Your task to perform on an android device: find which apps use the phone's location Image 0: 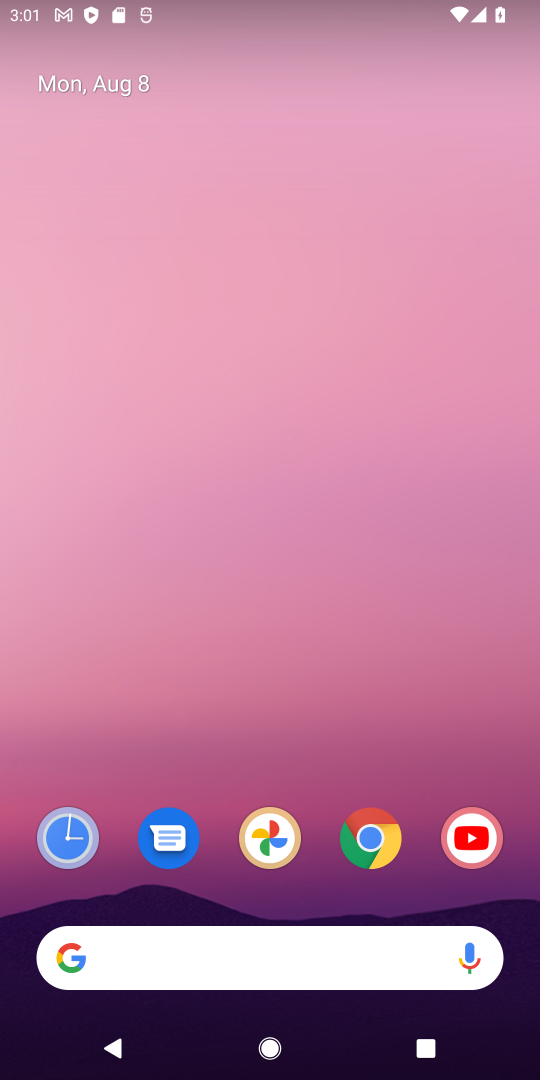
Step 0: drag from (222, 962) to (215, 285)
Your task to perform on an android device: find which apps use the phone's location Image 1: 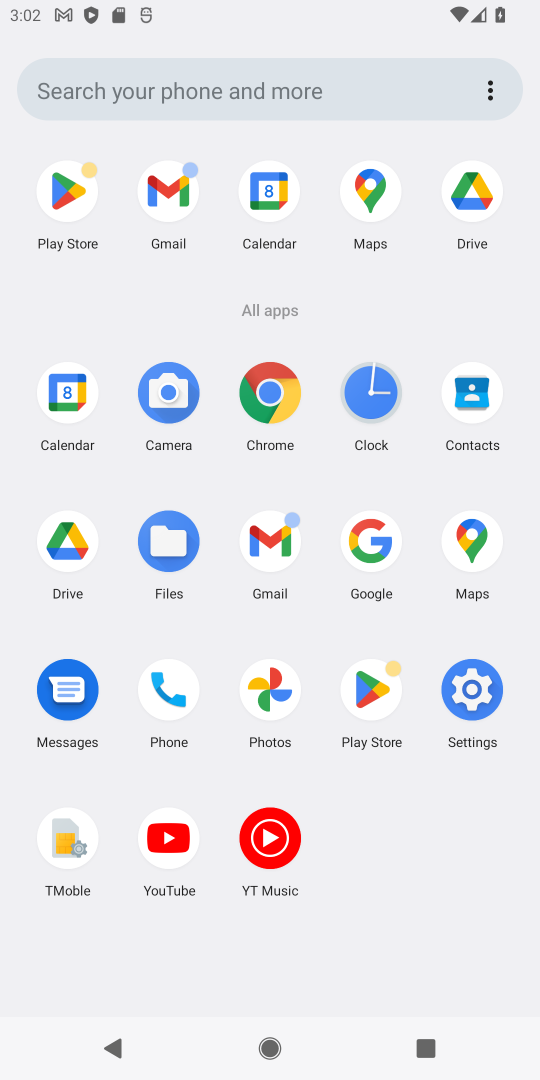
Step 1: click (471, 688)
Your task to perform on an android device: find which apps use the phone's location Image 2: 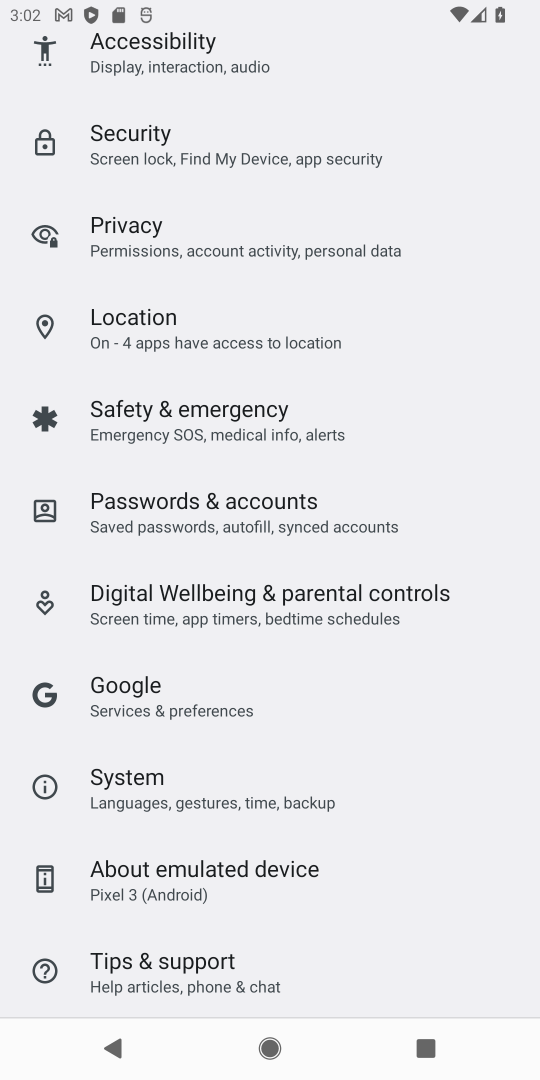
Step 2: click (242, 344)
Your task to perform on an android device: find which apps use the phone's location Image 3: 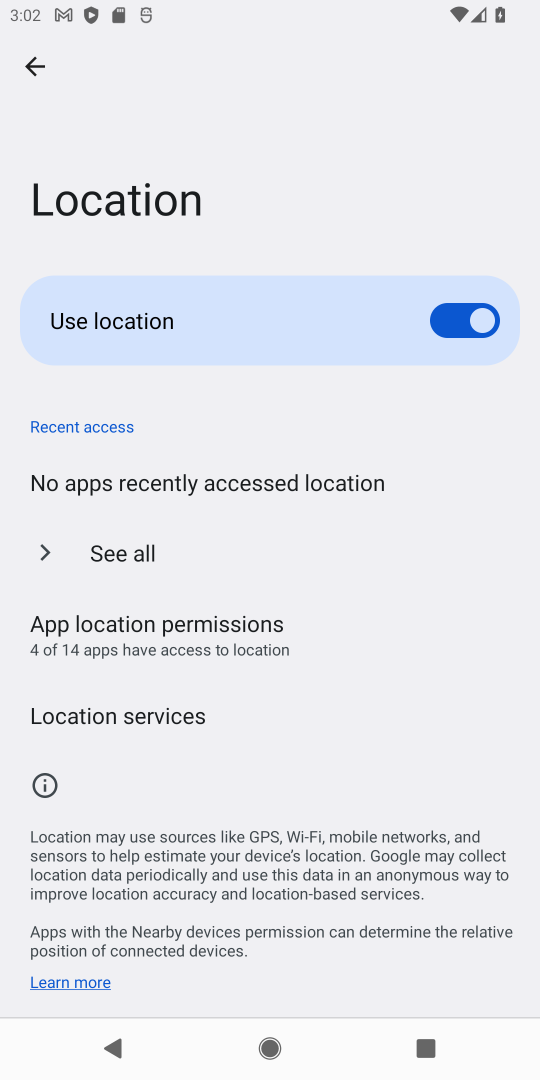
Step 3: click (200, 644)
Your task to perform on an android device: find which apps use the phone's location Image 4: 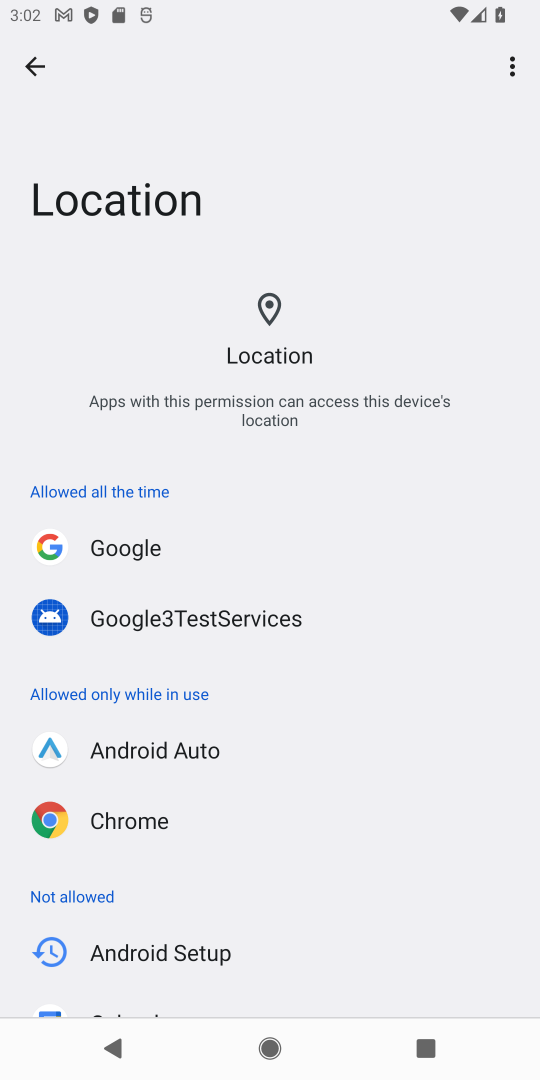
Step 4: drag from (156, 865) to (267, 698)
Your task to perform on an android device: find which apps use the phone's location Image 5: 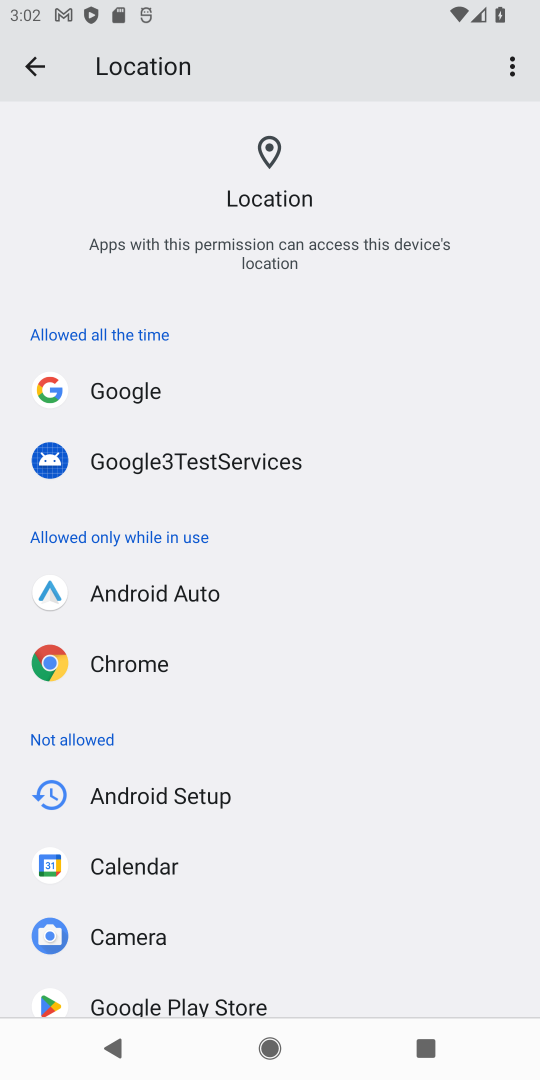
Step 5: drag from (195, 877) to (292, 727)
Your task to perform on an android device: find which apps use the phone's location Image 6: 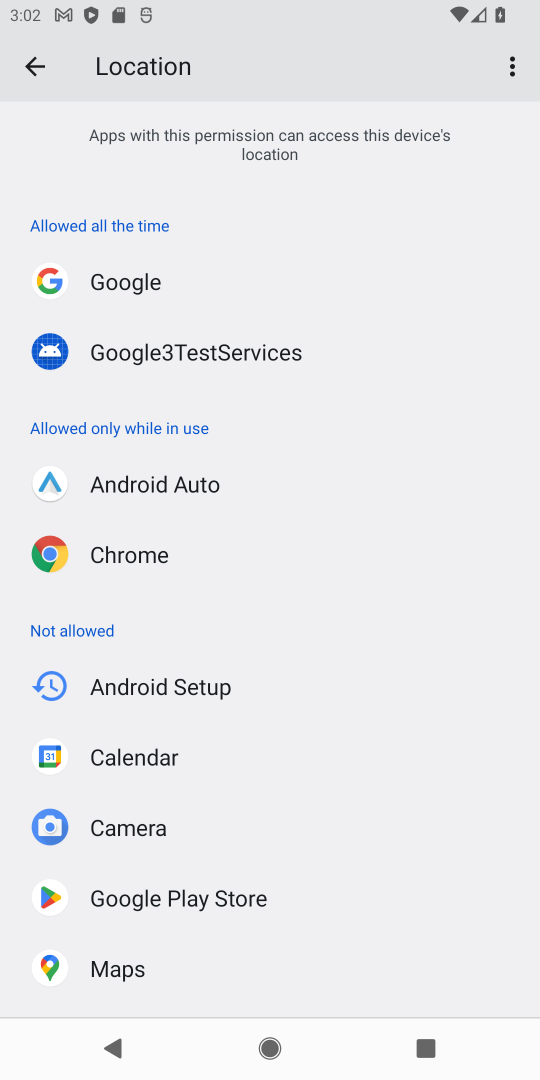
Step 6: click (138, 973)
Your task to perform on an android device: find which apps use the phone's location Image 7: 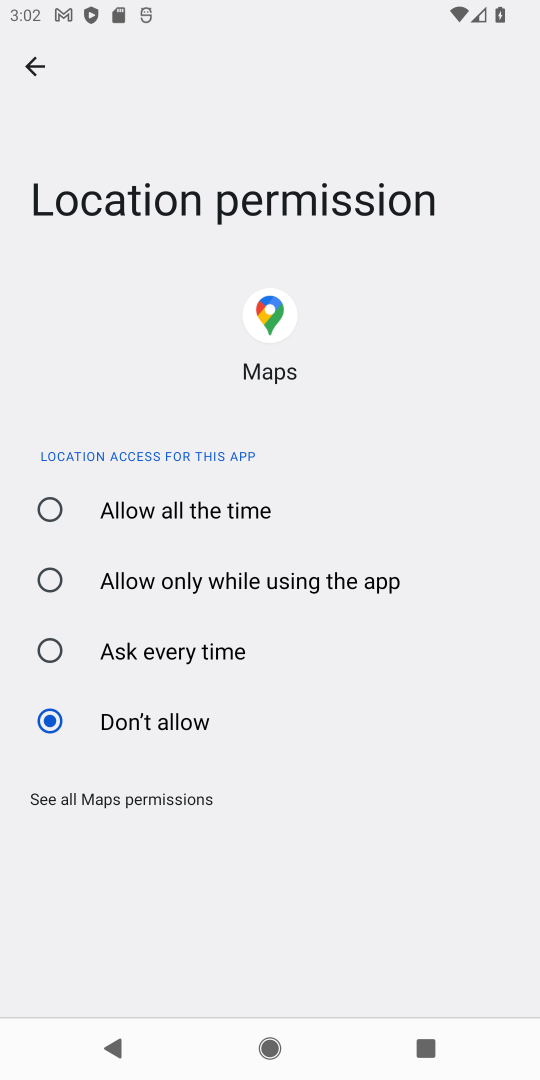
Step 7: click (49, 514)
Your task to perform on an android device: find which apps use the phone's location Image 8: 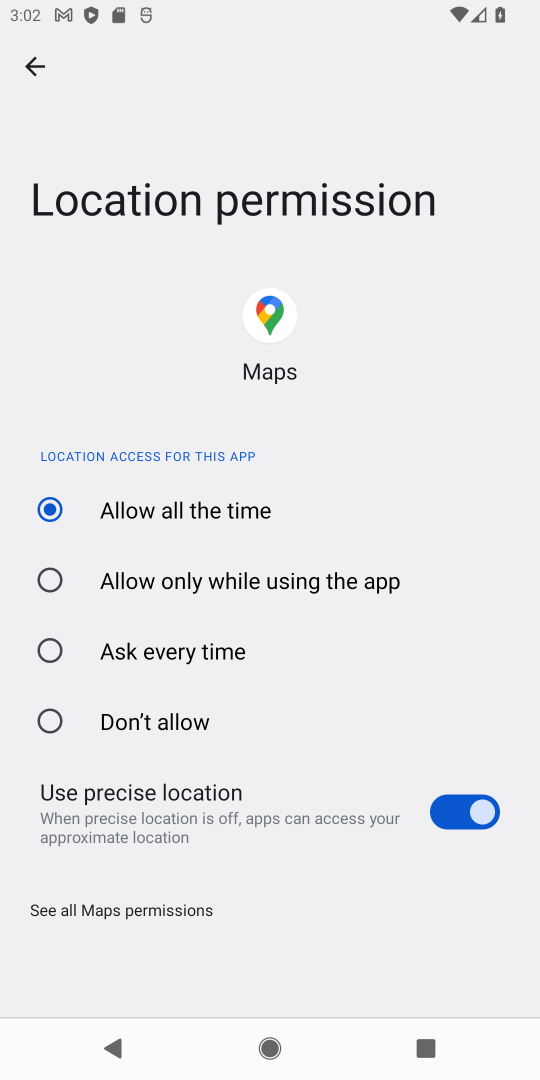
Step 8: task complete